Your task to perform on an android device: When is my next meeting? Image 0: 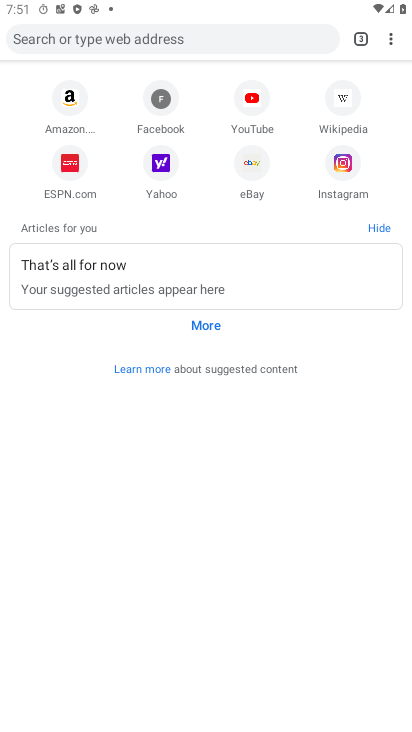
Step 0: press home button
Your task to perform on an android device: When is my next meeting? Image 1: 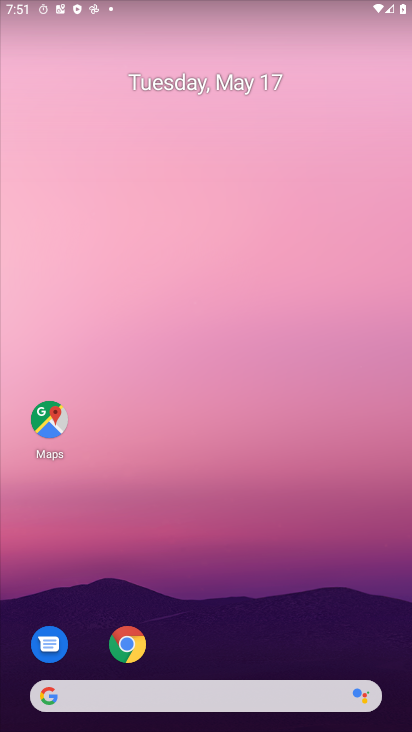
Step 1: drag from (219, 621) to (108, 51)
Your task to perform on an android device: When is my next meeting? Image 2: 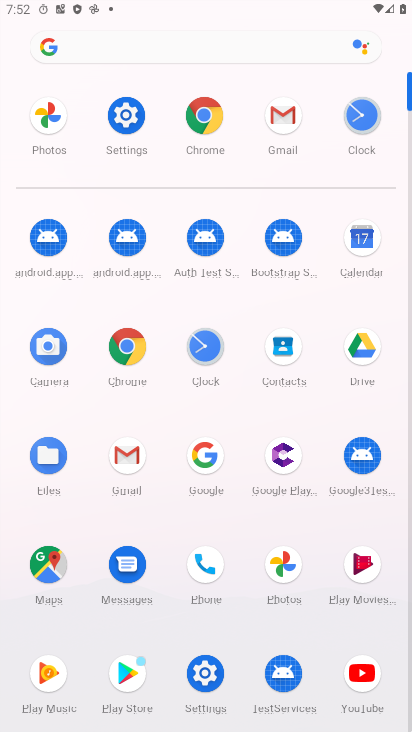
Step 2: click (369, 244)
Your task to perform on an android device: When is my next meeting? Image 3: 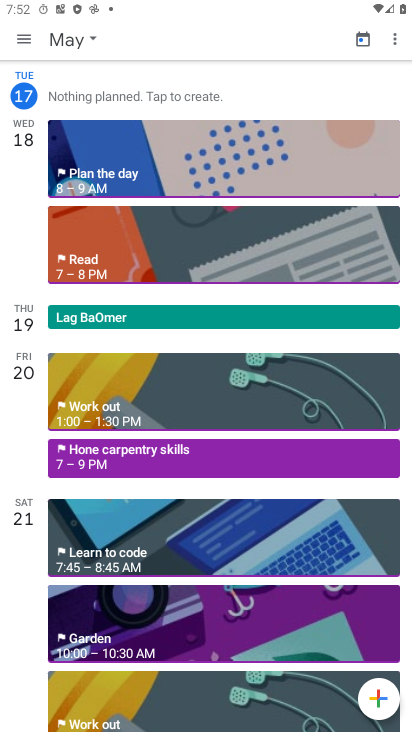
Step 3: task complete